Your task to perform on an android device: Open Chrome and go to settings Image 0: 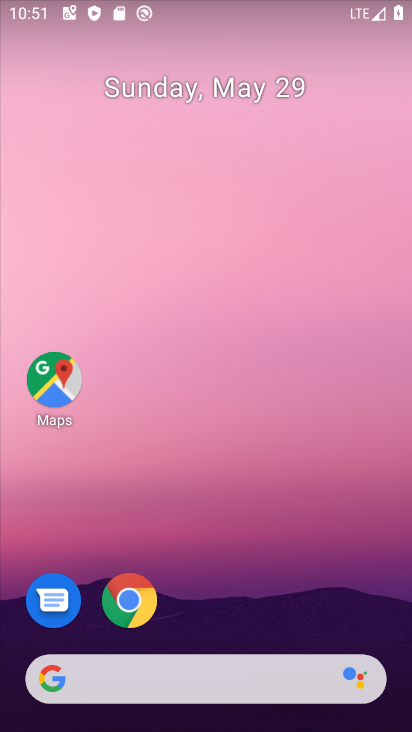
Step 0: click (121, 594)
Your task to perform on an android device: Open Chrome and go to settings Image 1: 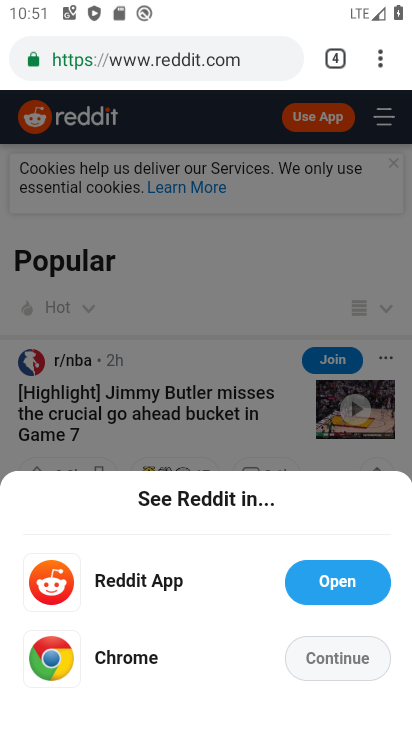
Step 1: drag from (380, 33) to (221, 672)
Your task to perform on an android device: Open Chrome and go to settings Image 2: 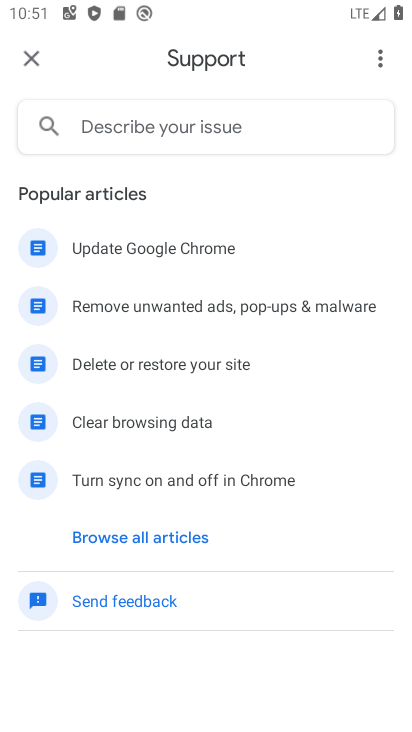
Step 2: click (46, 67)
Your task to perform on an android device: Open Chrome and go to settings Image 3: 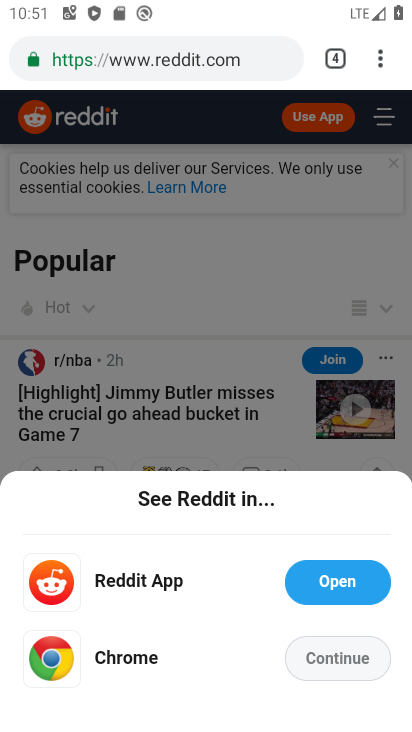
Step 3: task complete